Your task to perform on an android device: search for starred emails in the gmail app Image 0: 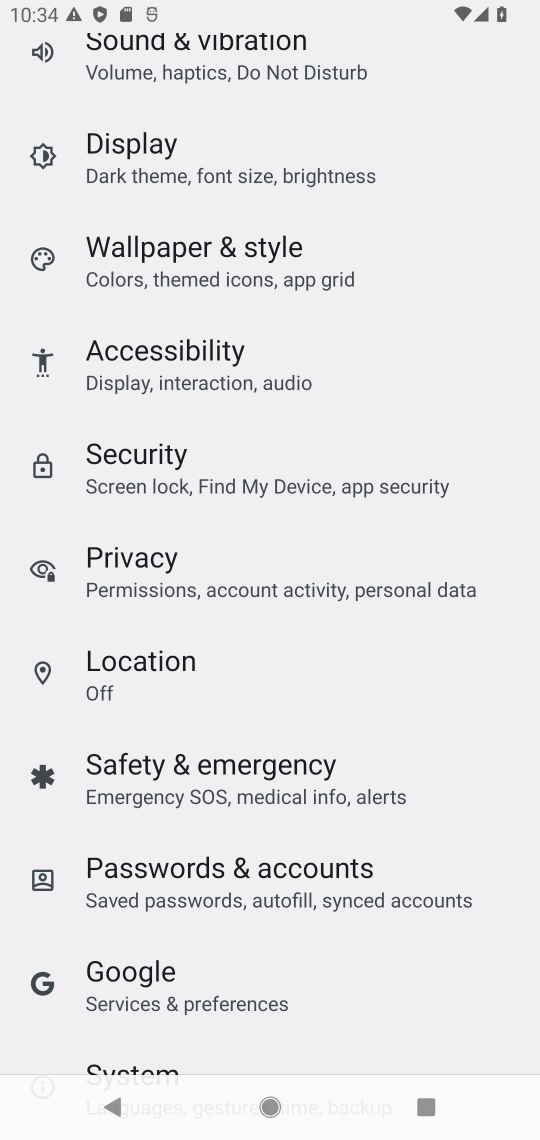
Step 0: press home button
Your task to perform on an android device: search for starred emails in the gmail app Image 1: 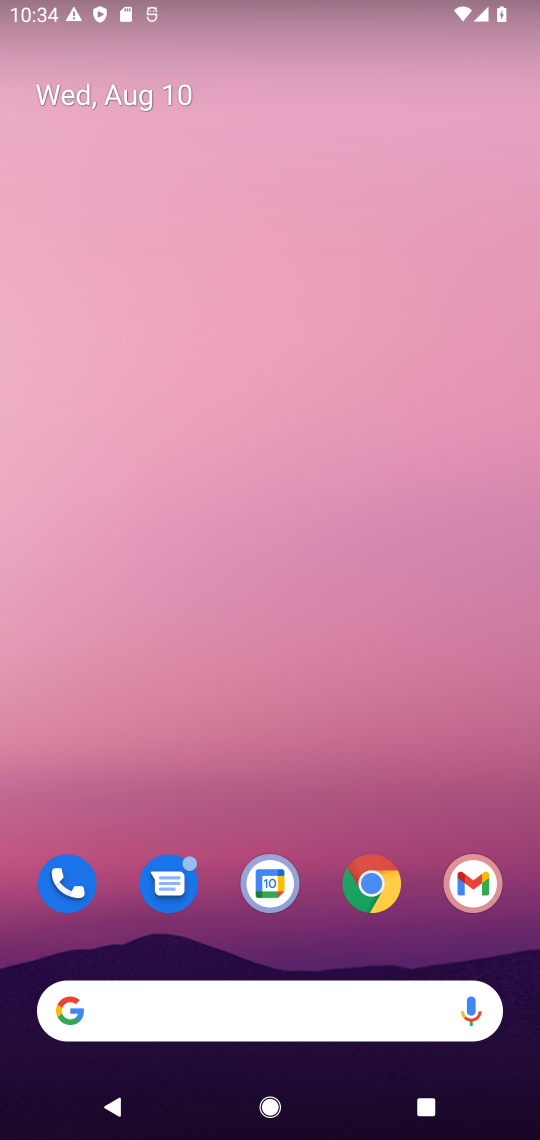
Step 1: drag from (292, 956) to (391, 3)
Your task to perform on an android device: search for starred emails in the gmail app Image 2: 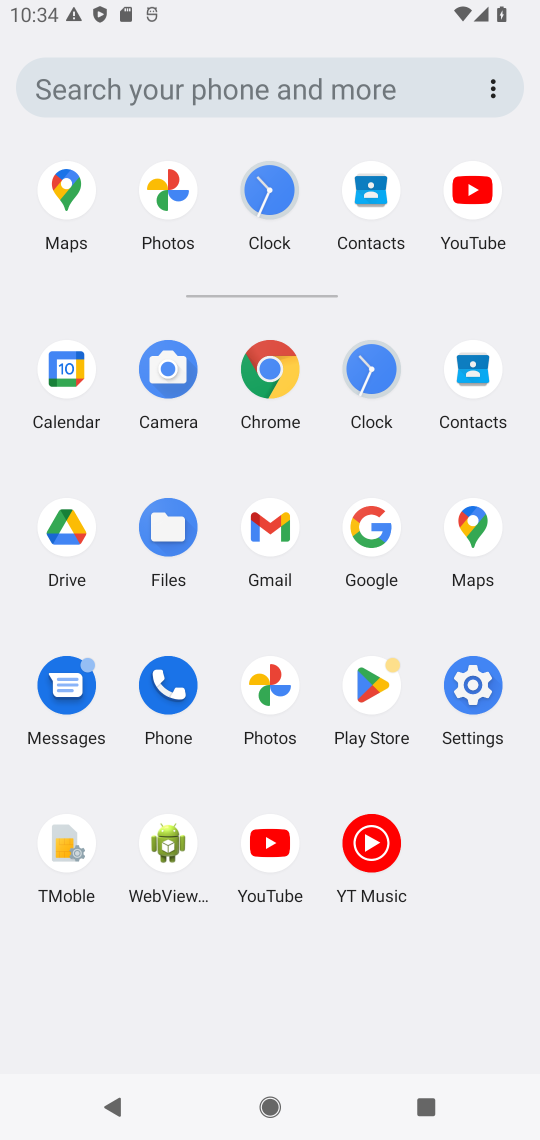
Step 2: click (273, 507)
Your task to perform on an android device: search for starred emails in the gmail app Image 3: 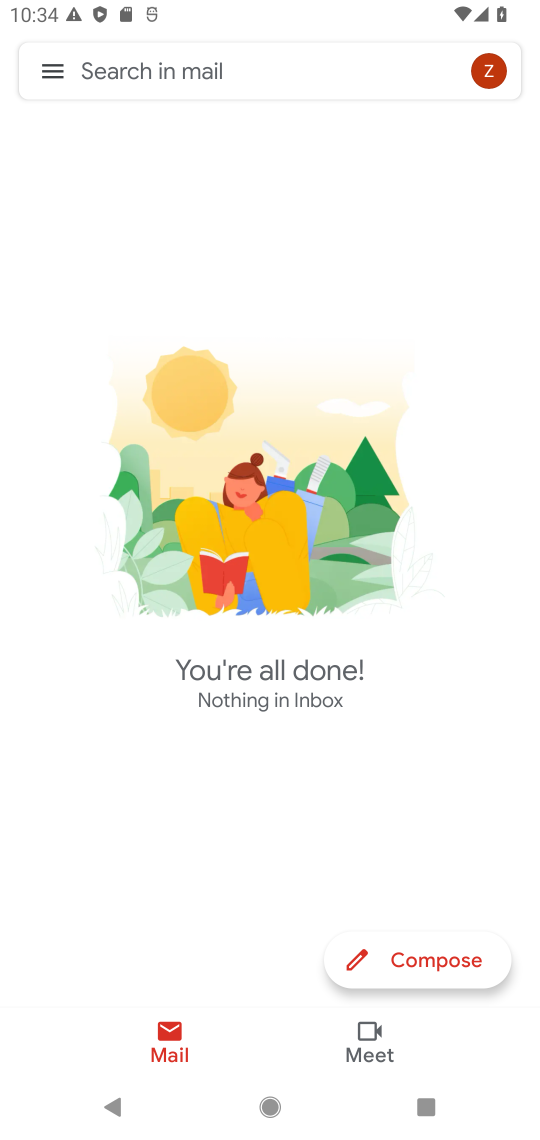
Step 3: task complete